Your task to perform on an android device: Go to privacy settings Image 0: 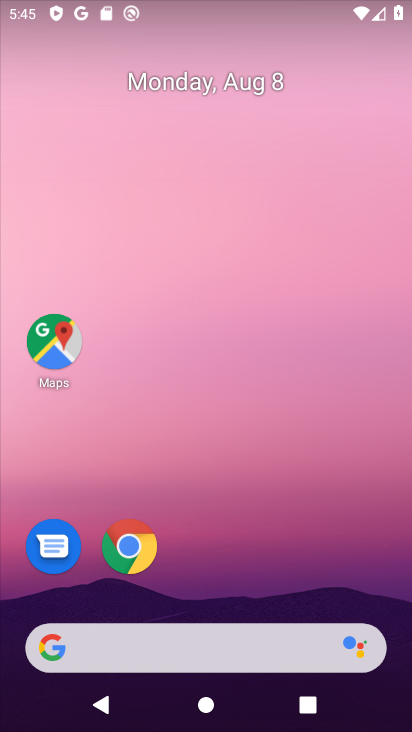
Step 0: drag from (220, 580) to (220, 126)
Your task to perform on an android device: Go to privacy settings Image 1: 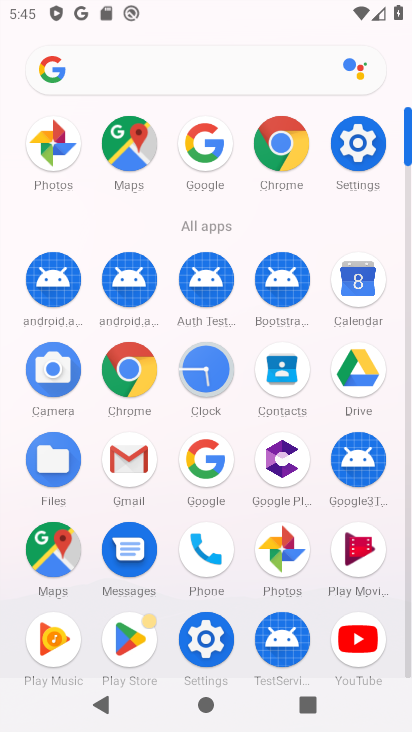
Step 1: click (361, 166)
Your task to perform on an android device: Go to privacy settings Image 2: 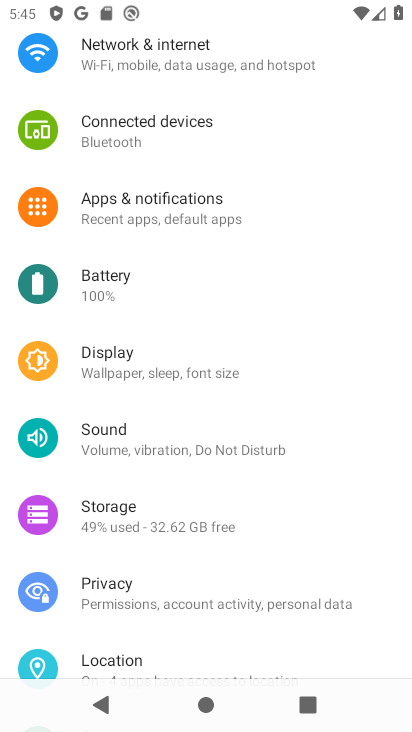
Step 2: click (186, 581)
Your task to perform on an android device: Go to privacy settings Image 3: 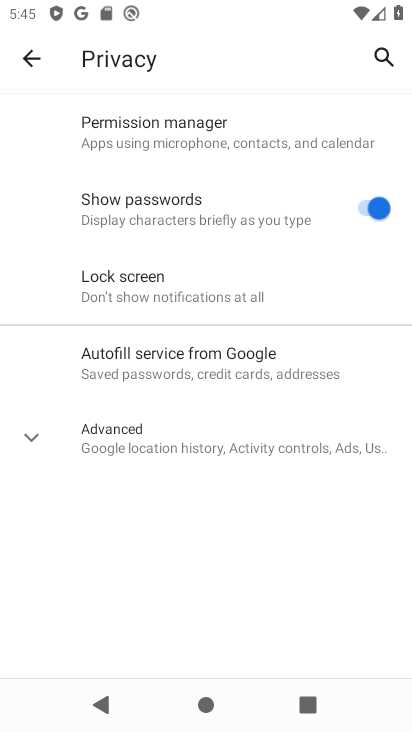
Step 3: task complete